Your task to perform on an android device: see tabs open on other devices in the chrome app Image 0: 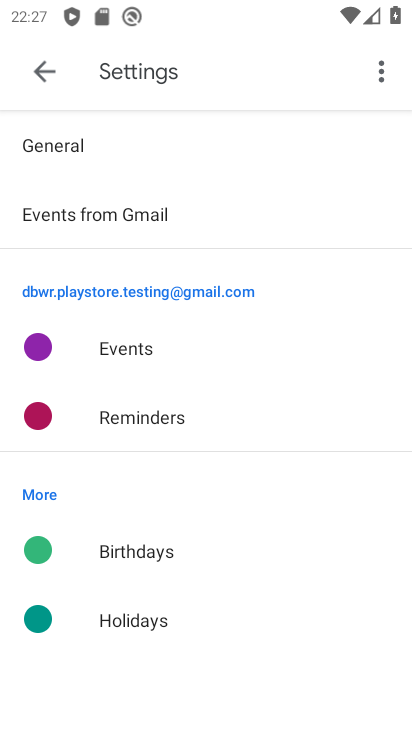
Step 0: press home button
Your task to perform on an android device: see tabs open on other devices in the chrome app Image 1: 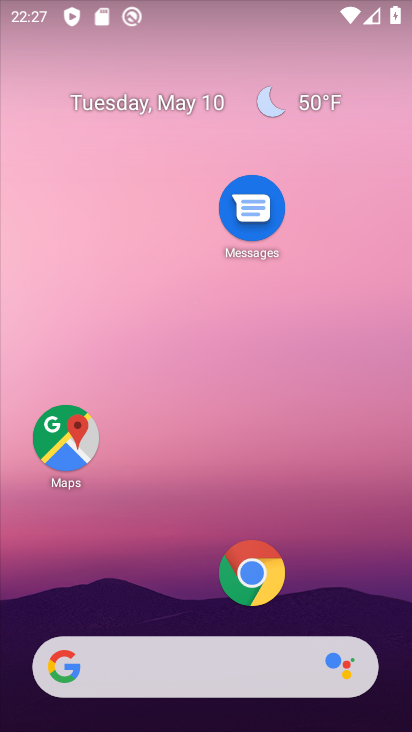
Step 1: click (255, 573)
Your task to perform on an android device: see tabs open on other devices in the chrome app Image 2: 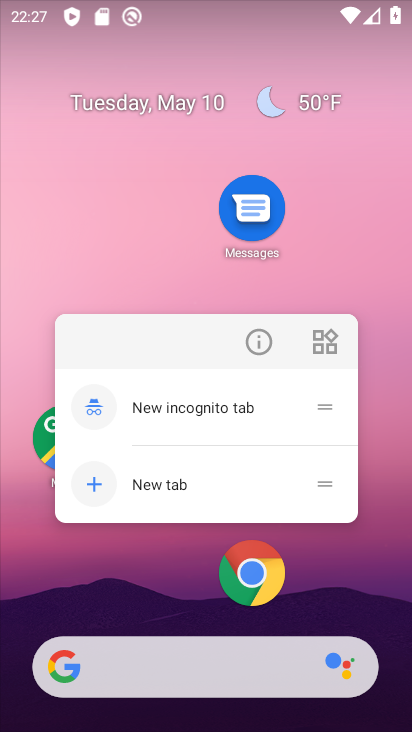
Step 2: click (255, 573)
Your task to perform on an android device: see tabs open on other devices in the chrome app Image 3: 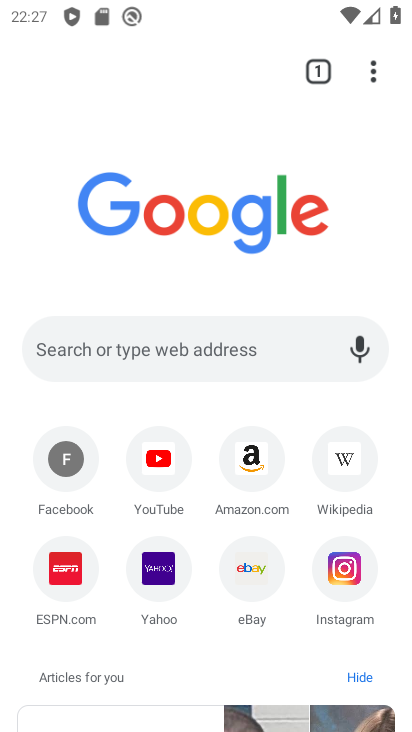
Step 3: click (317, 72)
Your task to perform on an android device: see tabs open on other devices in the chrome app Image 4: 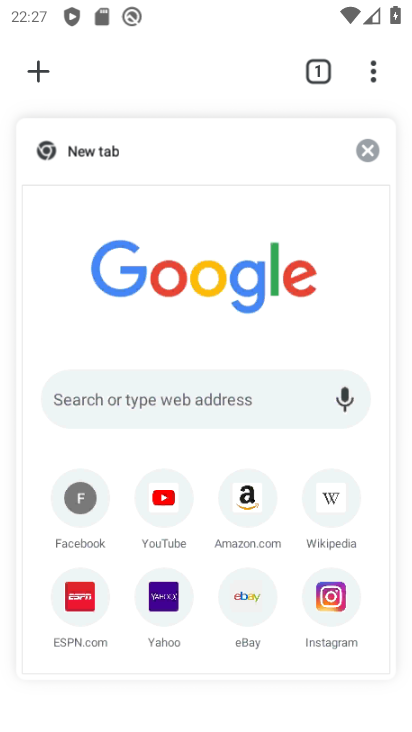
Step 4: task complete